Your task to perform on an android device: Is it going to rain today? Image 0: 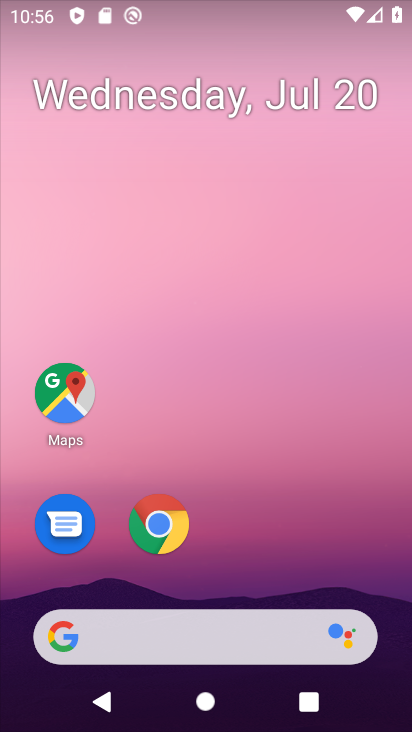
Step 0: click (265, 644)
Your task to perform on an android device: Is it going to rain today? Image 1: 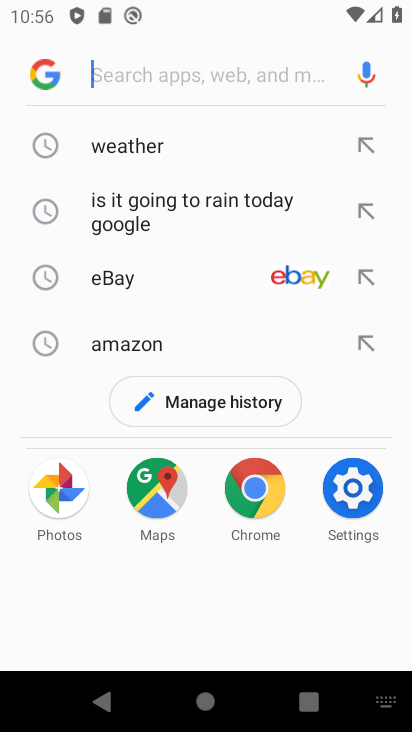
Step 1: click (130, 144)
Your task to perform on an android device: Is it going to rain today? Image 2: 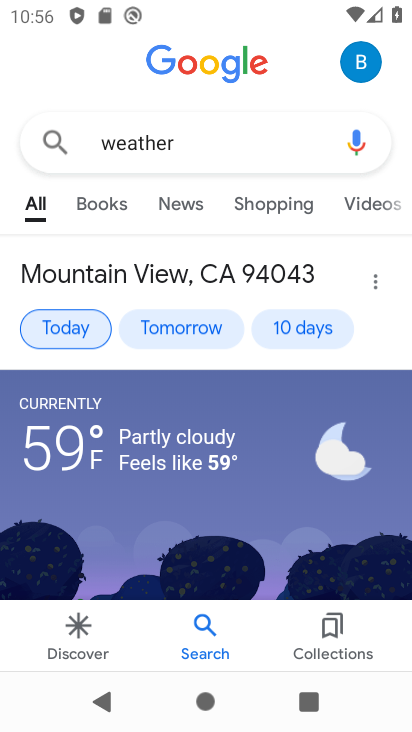
Step 2: click (80, 325)
Your task to perform on an android device: Is it going to rain today? Image 3: 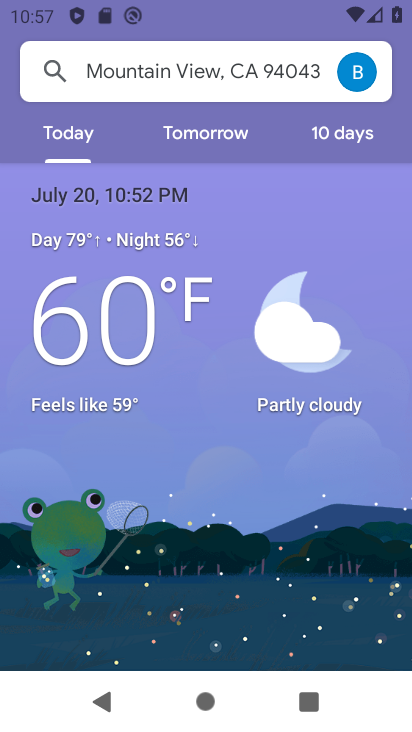
Step 3: task complete